Your task to perform on an android device: Open display settings Image 0: 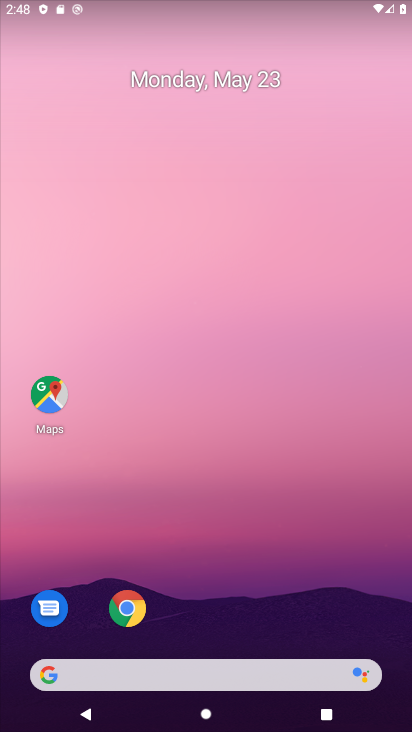
Step 0: drag from (321, 361) to (318, 181)
Your task to perform on an android device: Open display settings Image 1: 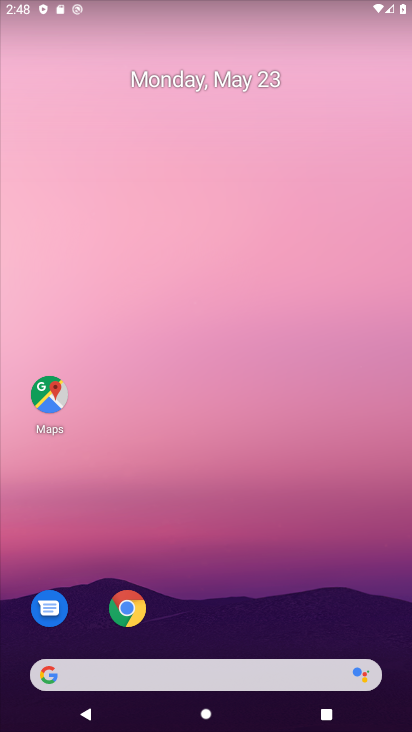
Step 1: drag from (346, 578) to (324, 151)
Your task to perform on an android device: Open display settings Image 2: 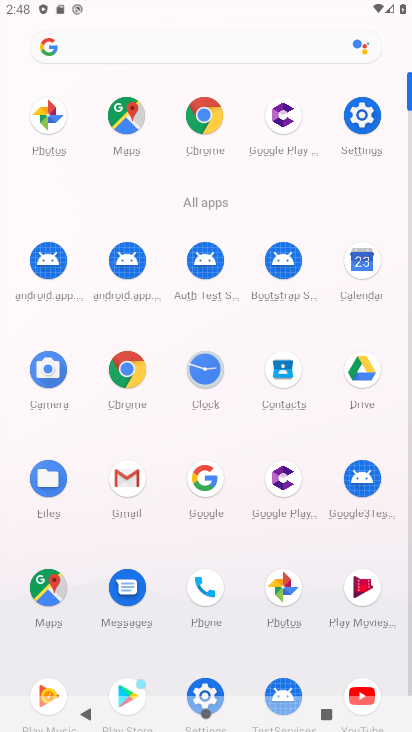
Step 2: click (356, 132)
Your task to perform on an android device: Open display settings Image 3: 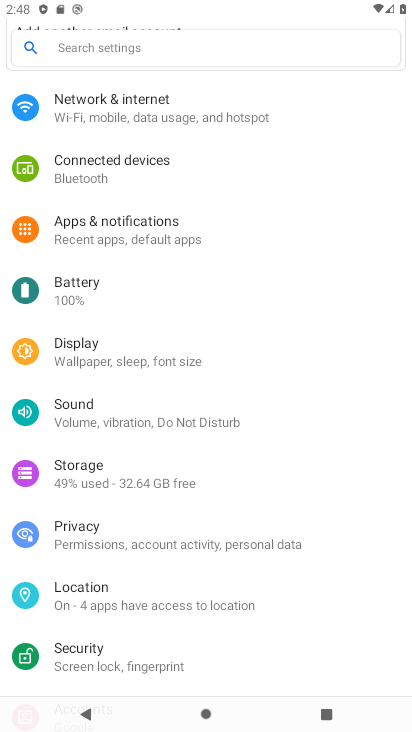
Step 3: click (116, 352)
Your task to perform on an android device: Open display settings Image 4: 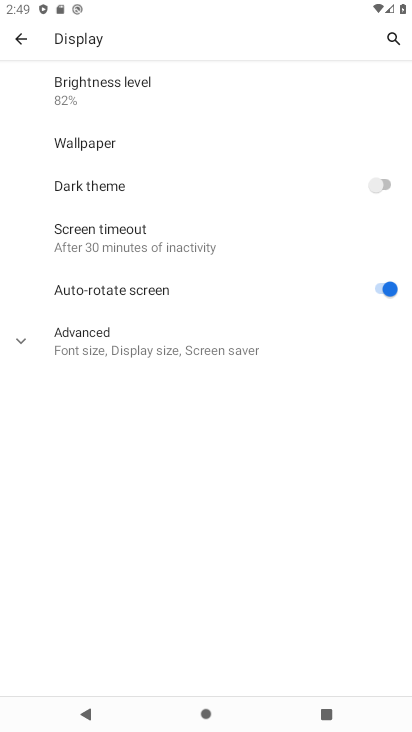
Step 4: click (231, 349)
Your task to perform on an android device: Open display settings Image 5: 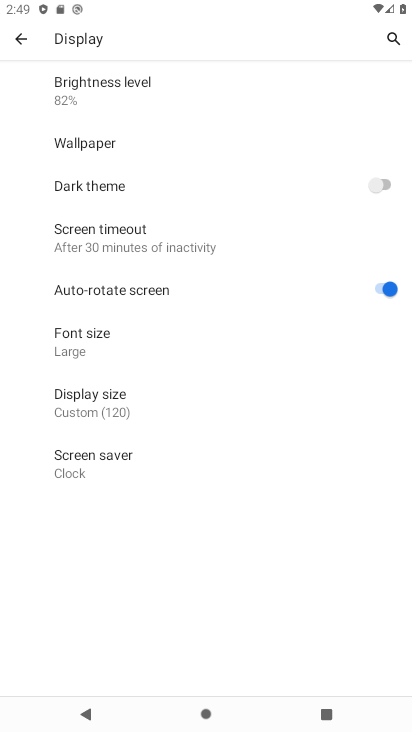
Step 5: task complete